Your task to perform on an android device: turn on the 12-hour format for clock Image 0: 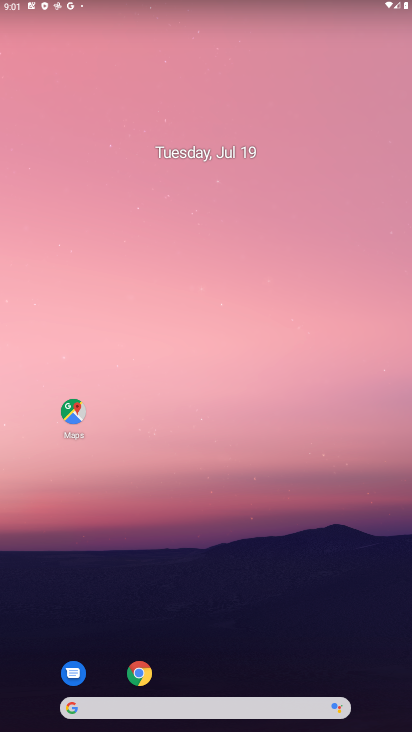
Step 0: drag from (287, 653) to (233, 194)
Your task to perform on an android device: turn on the 12-hour format for clock Image 1: 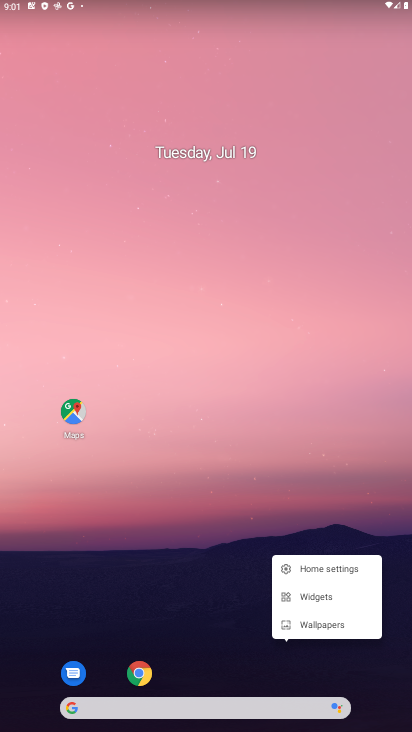
Step 1: click (172, 448)
Your task to perform on an android device: turn on the 12-hour format for clock Image 2: 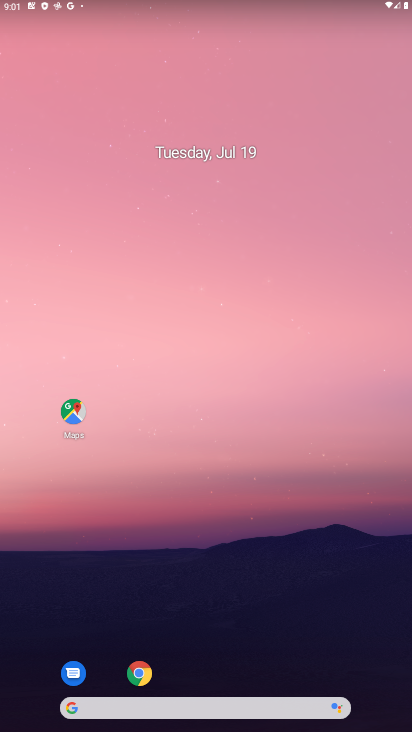
Step 2: drag from (254, 679) to (244, 297)
Your task to perform on an android device: turn on the 12-hour format for clock Image 3: 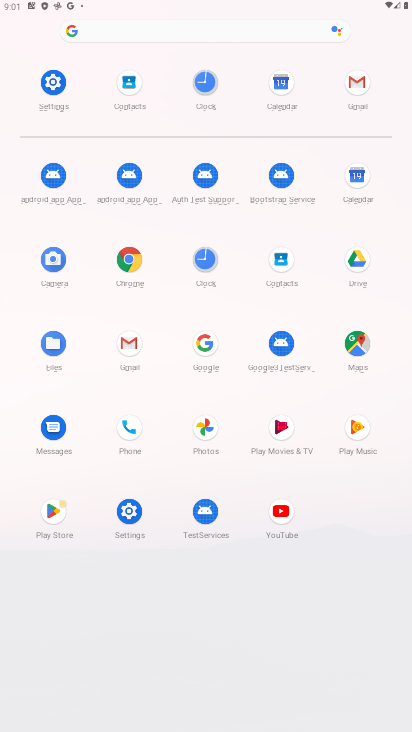
Step 3: click (207, 95)
Your task to perform on an android device: turn on the 12-hour format for clock Image 4: 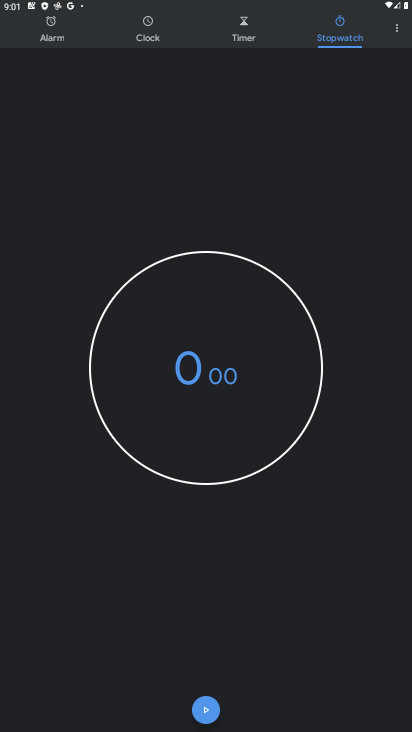
Step 4: click (396, 43)
Your task to perform on an android device: turn on the 12-hour format for clock Image 5: 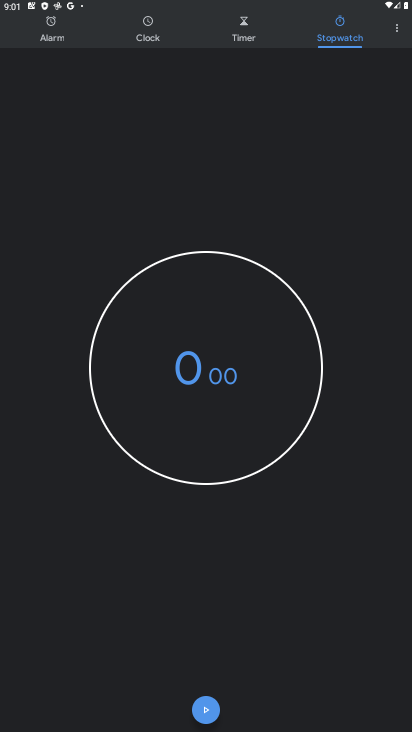
Step 5: click (388, 26)
Your task to perform on an android device: turn on the 12-hour format for clock Image 6: 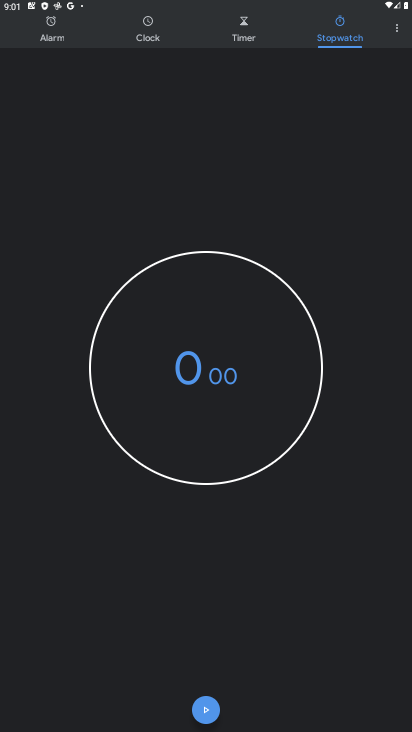
Step 6: click (399, 38)
Your task to perform on an android device: turn on the 12-hour format for clock Image 7: 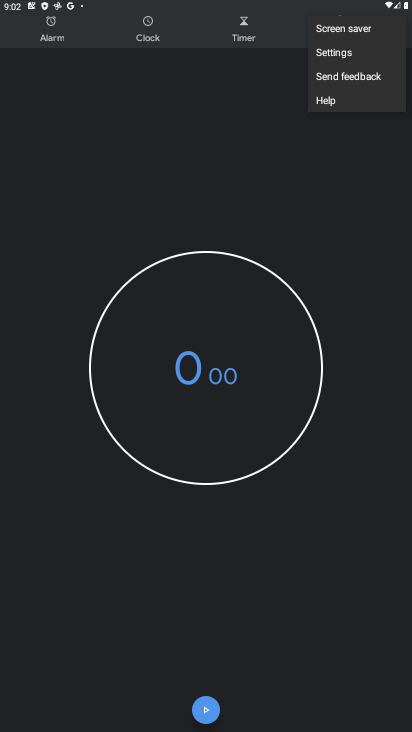
Step 7: click (350, 56)
Your task to perform on an android device: turn on the 12-hour format for clock Image 8: 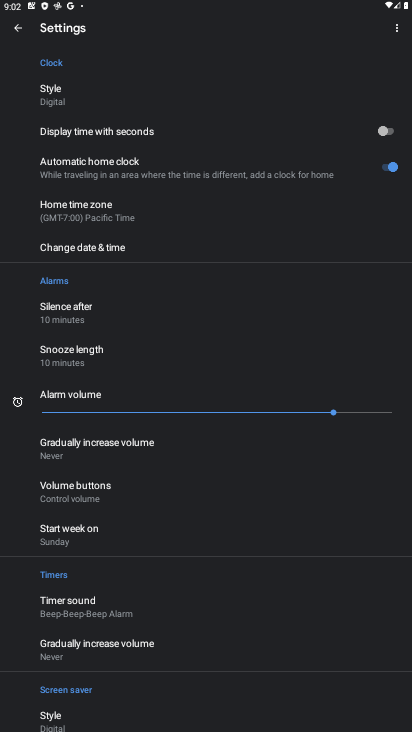
Step 8: click (123, 250)
Your task to perform on an android device: turn on the 12-hour format for clock Image 9: 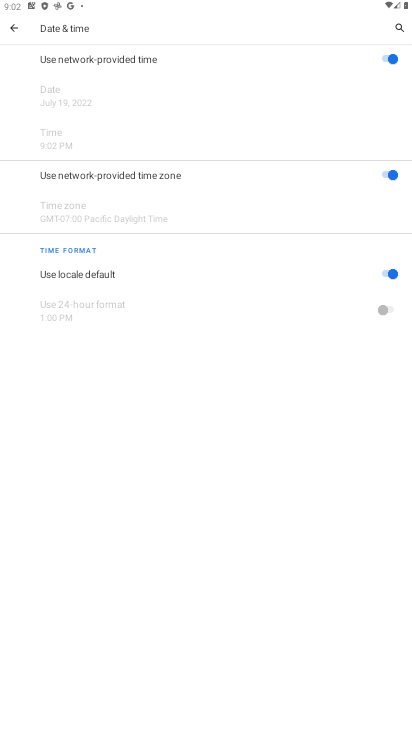
Step 9: click (391, 277)
Your task to perform on an android device: turn on the 12-hour format for clock Image 10: 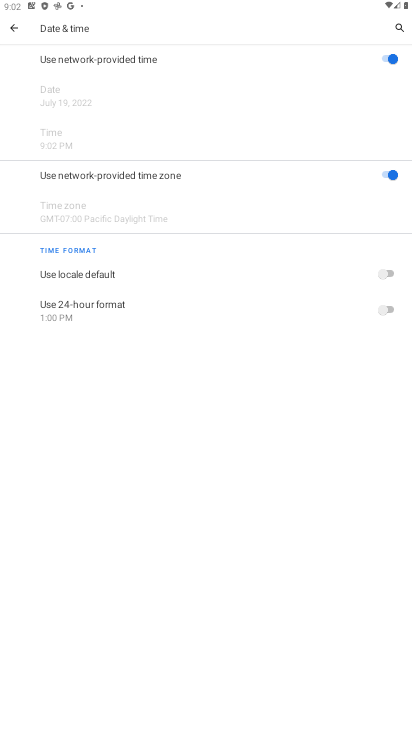
Step 10: task complete